Your task to perform on an android device: Search for nike dri-fit shirts on Nike Image 0: 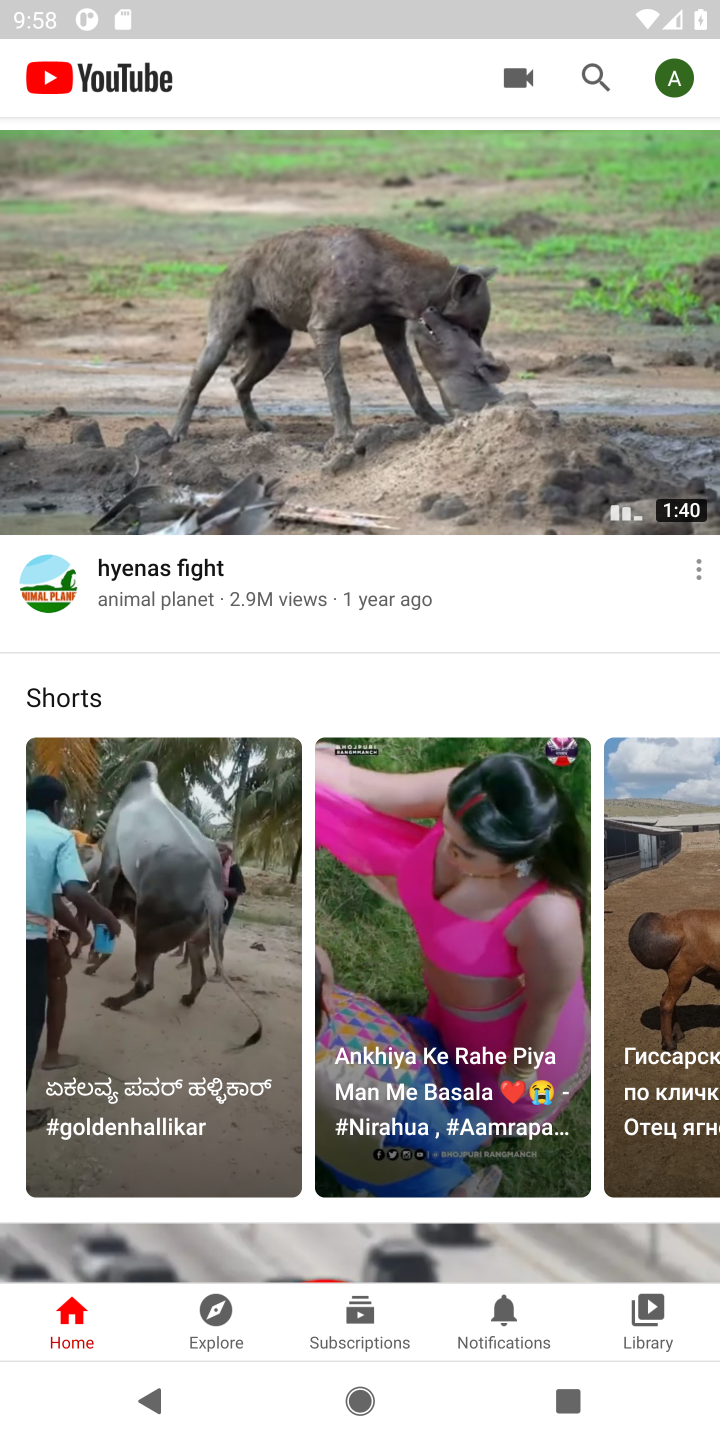
Step 0: press home button
Your task to perform on an android device: Search for nike dri-fit shirts on Nike Image 1: 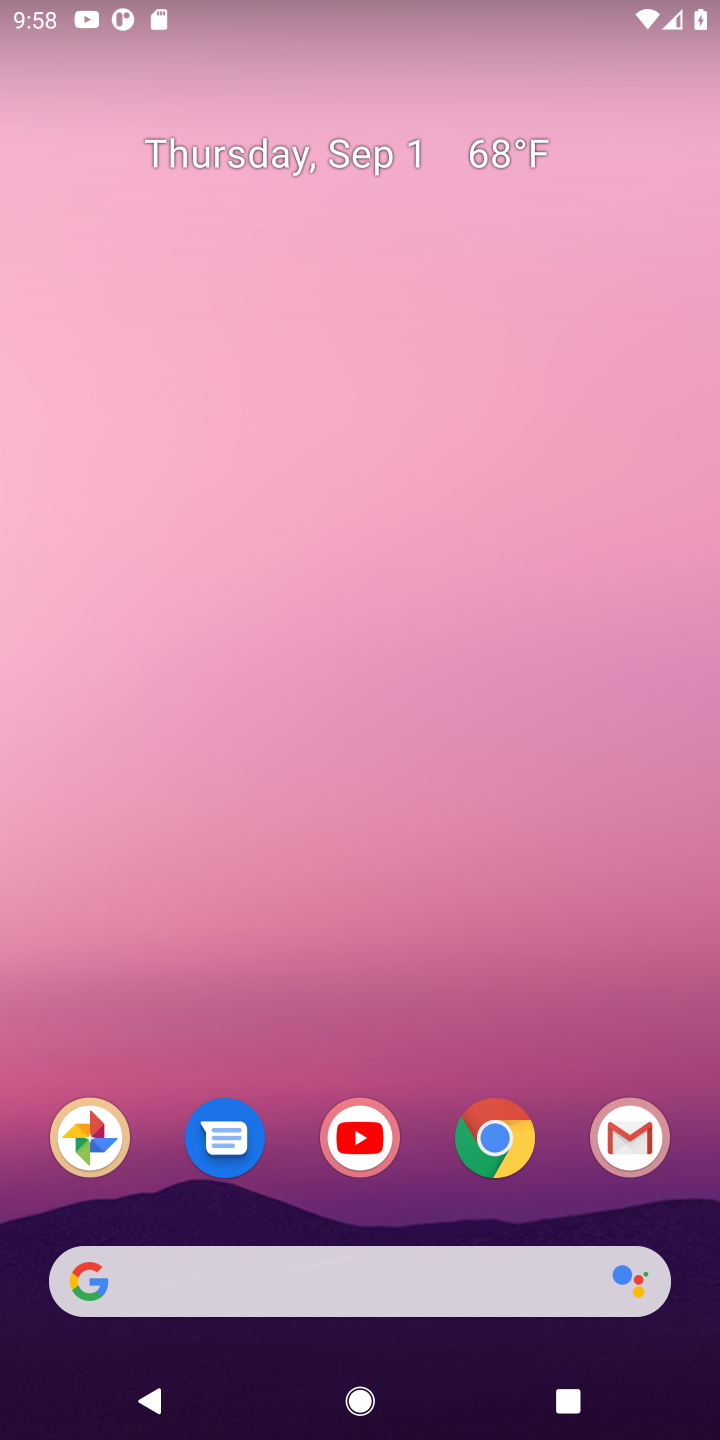
Step 1: click (493, 1139)
Your task to perform on an android device: Search for nike dri-fit shirts on Nike Image 2: 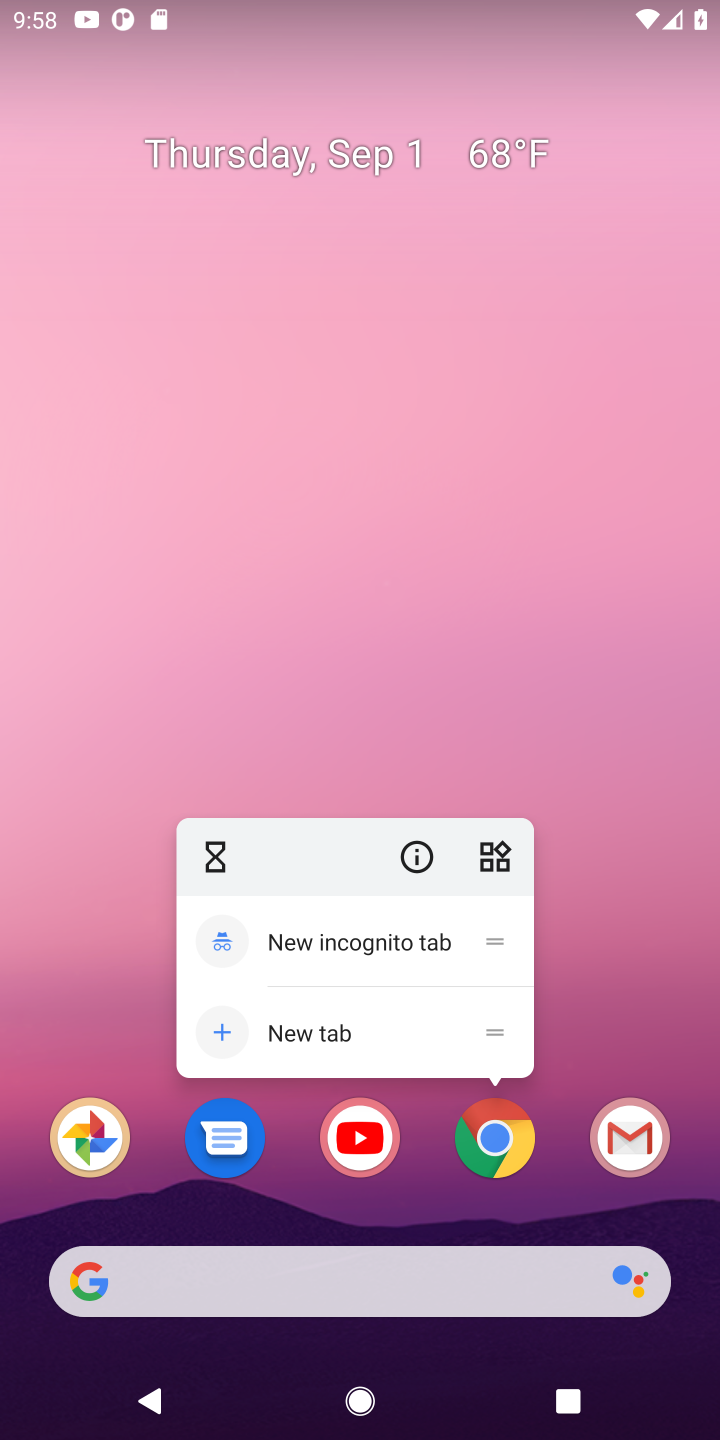
Step 2: click (182, 1296)
Your task to perform on an android device: Search for nike dri-fit shirts on Nike Image 3: 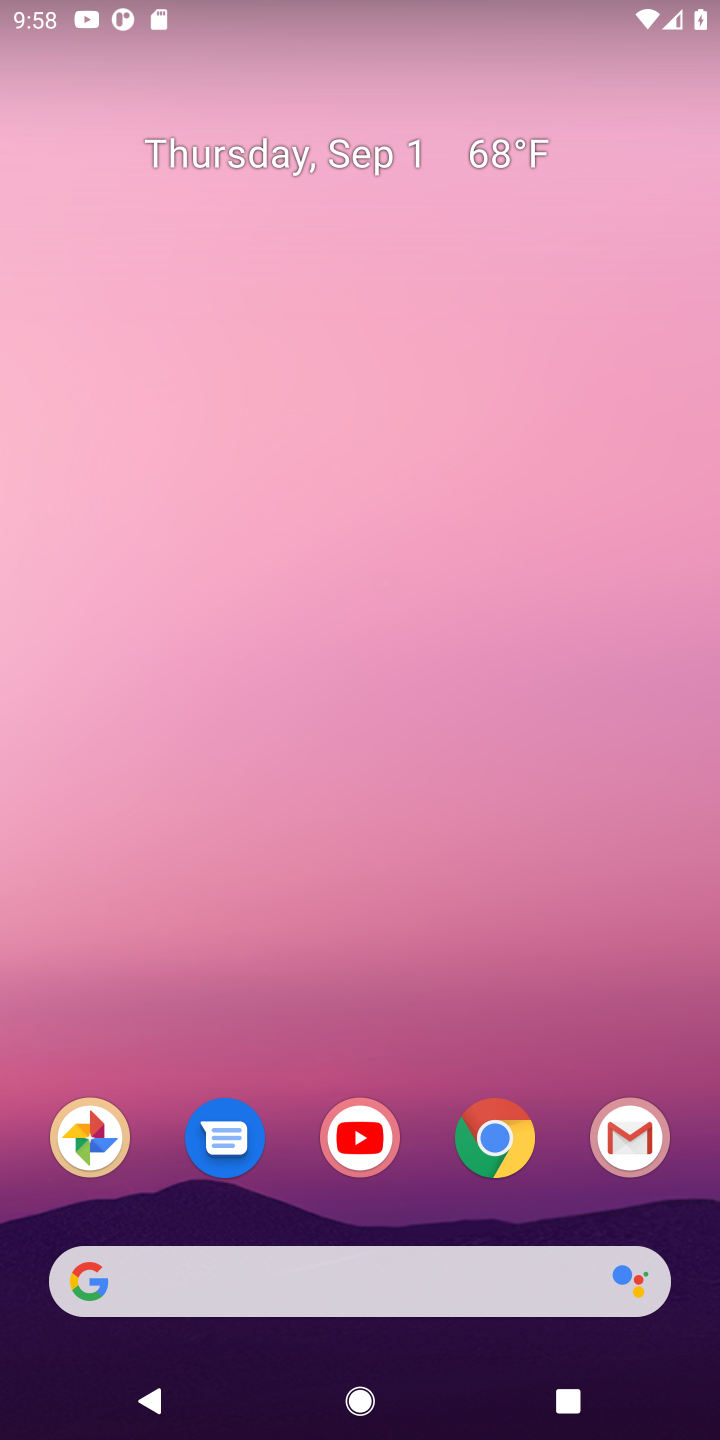
Step 3: click (182, 1296)
Your task to perform on an android device: Search for nike dri-fit shirts on Nike Image 4: 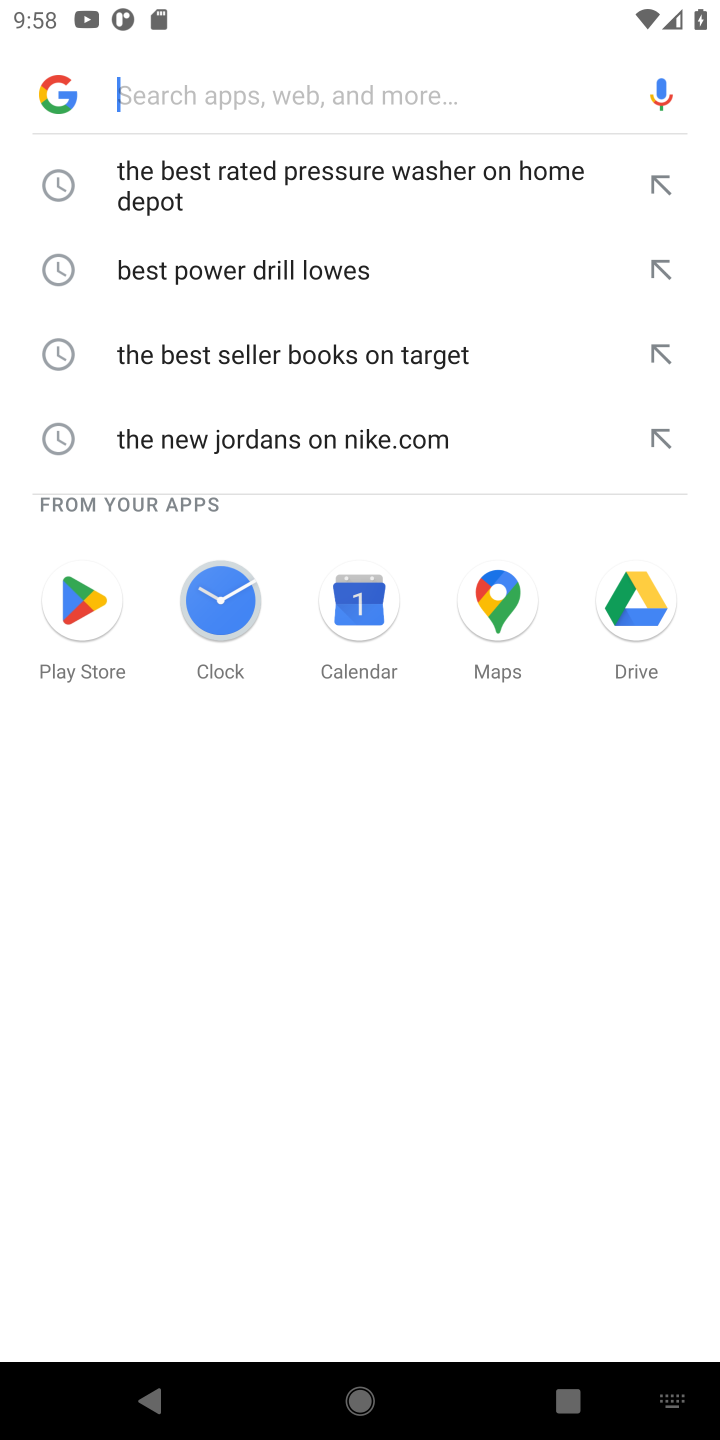
Step 4: type "nike dri-fit shirts on Nike"
Your task to perform on an android device: Search for nike dri-fit shirts on Nike Image 5: 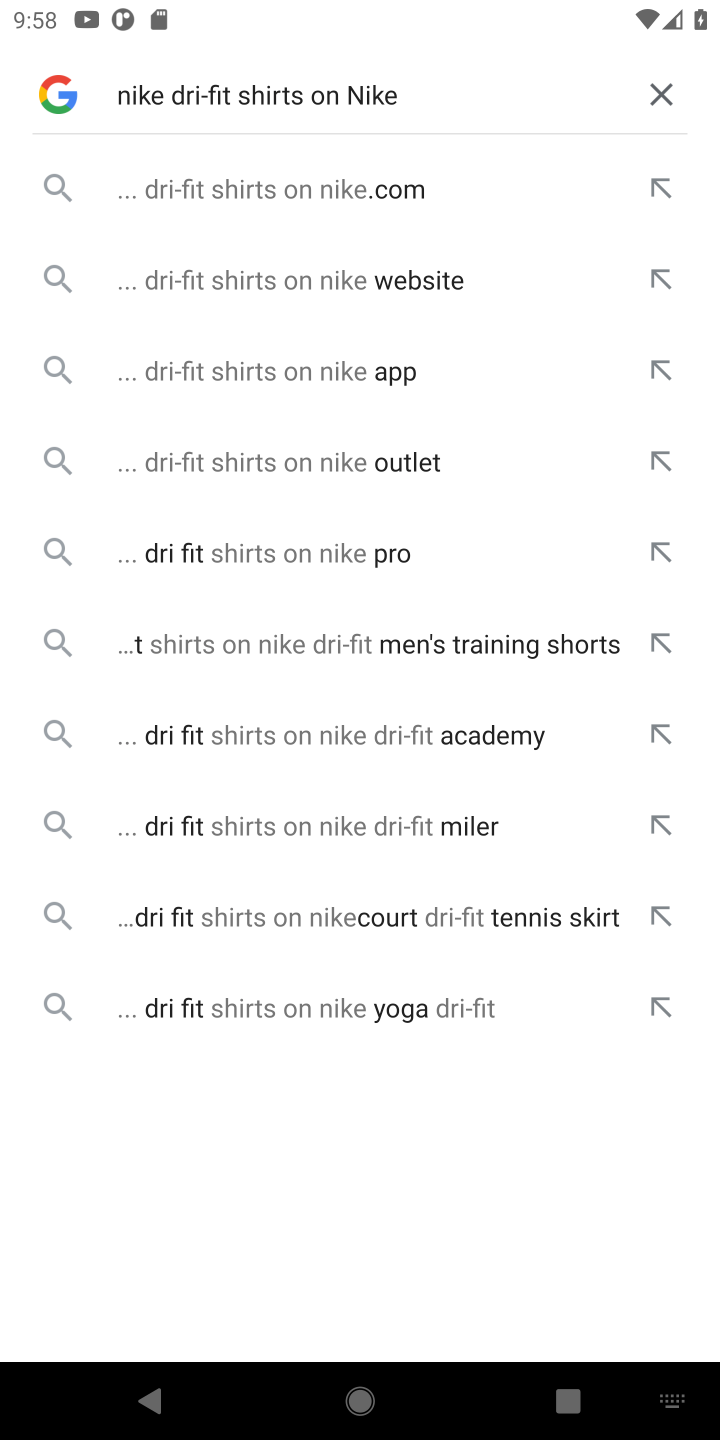
Step 5: click (295, 185)
Your task to perform on an android device: Search for nike dri-fit shirts on Nike Image 6: 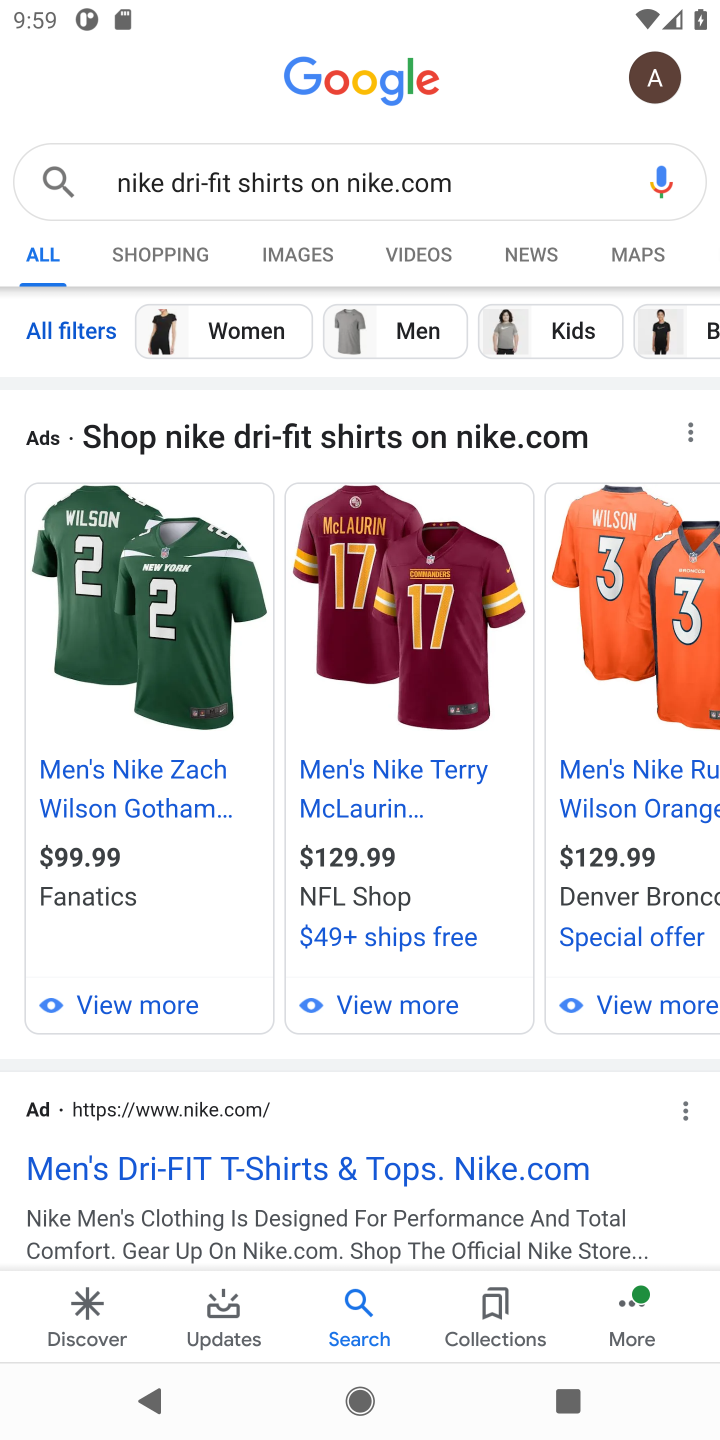
Step 6: task complete